Your task to perform on an android device: Search for vegetarian restaurants on Maps Image 0: 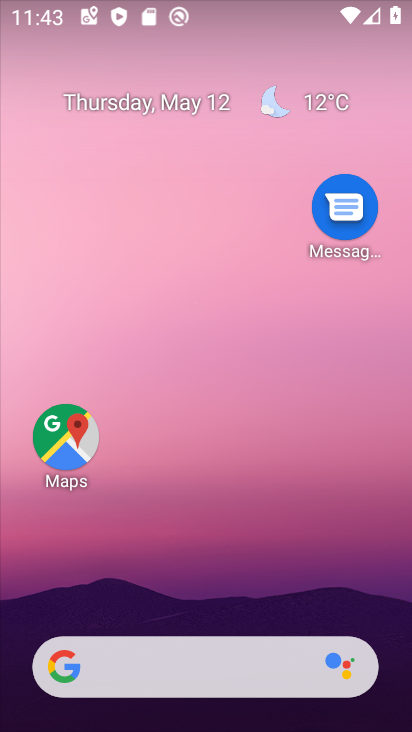
Step 0: press home button
Your task to perform on an android device: Search for vegetarian restaurants on Maps Image 1: 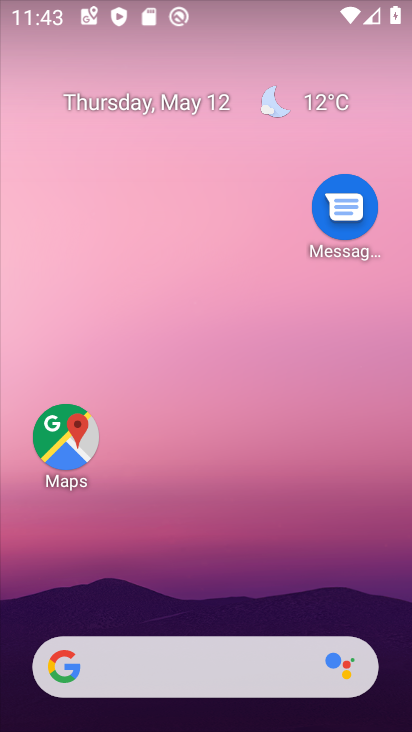
Step 1: click (78, 447)
Your task to perform on an android device: Search for vegetarian restaurants on Maps Image 2: 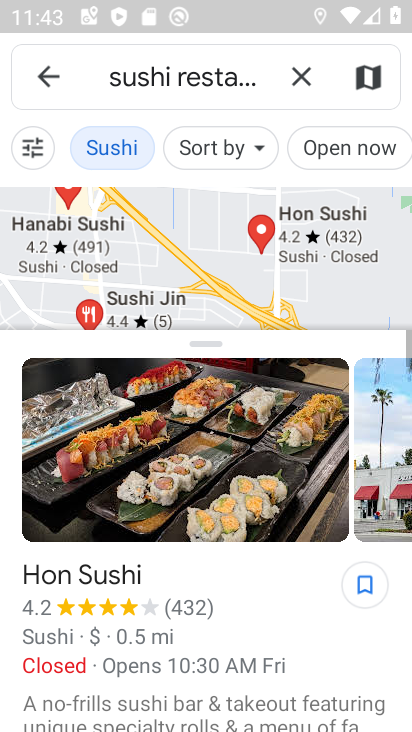
Step 2: click (309, 72)
Your task to perform on an android device: Search for vegetarian restaurants on Maps Image 3: 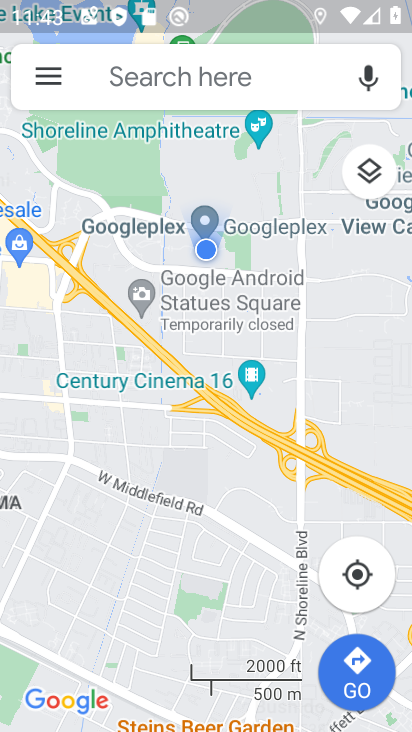
Step 3: click (206, 87)
Your task to perform on an android device: Search for vegetarian restaurants on Maps Image 4: 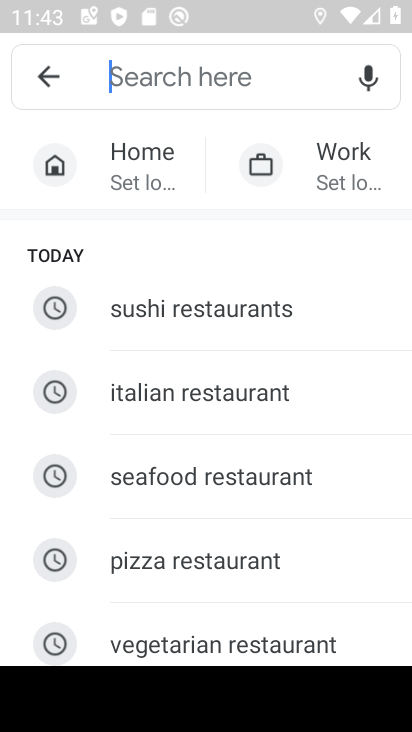
Step 4: type "vegetarian restaurants "
Your task to perform on an android device: Search for vegetarian restaurants on Maps Image 5: 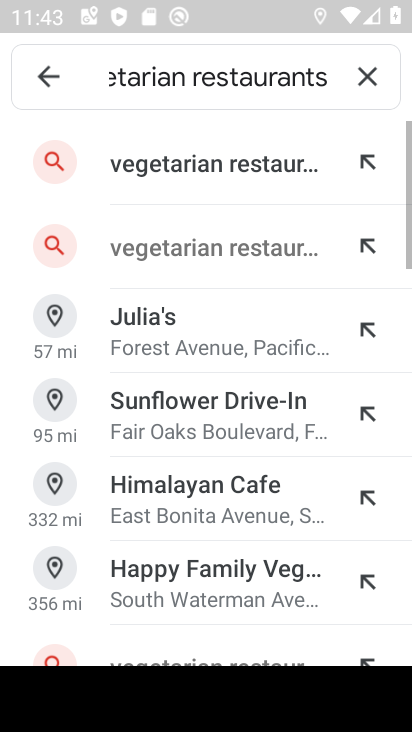
Step 5: click (241, 135)
Your task to perform on an android device: Search for vegetarian restaurants on Maps Image 6: 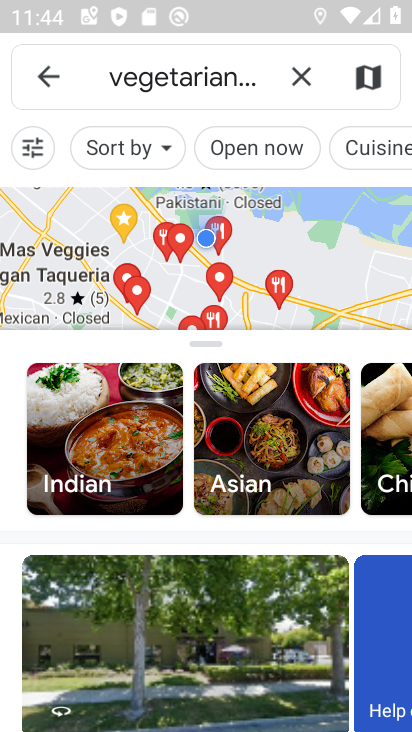
Step 6: task complete